Your task to perform on an android device: check android version Image 0: 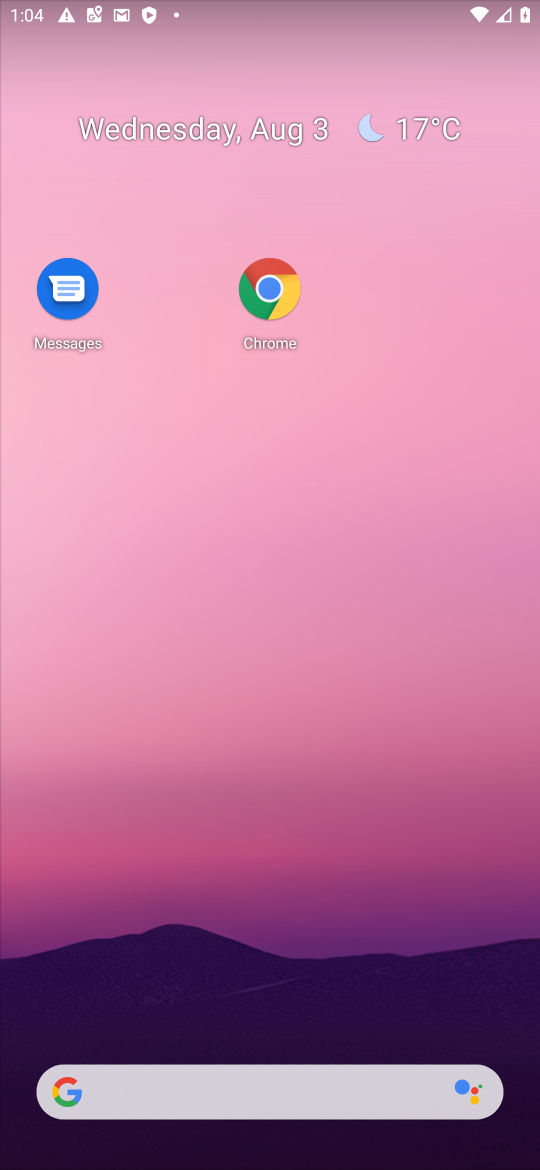
Step 0: drag from (387, 1040) to (497, 12)
Your task to perform on an android device: check android version Image 1: 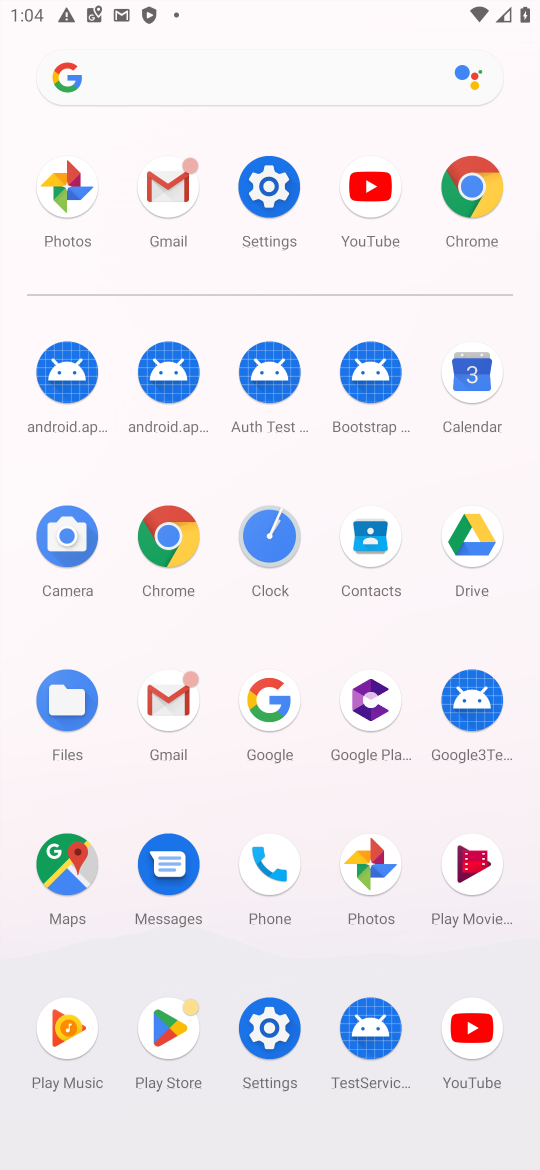
Step 1: click (281, 212)
Your task to perform on an android device: check android version Image 2: 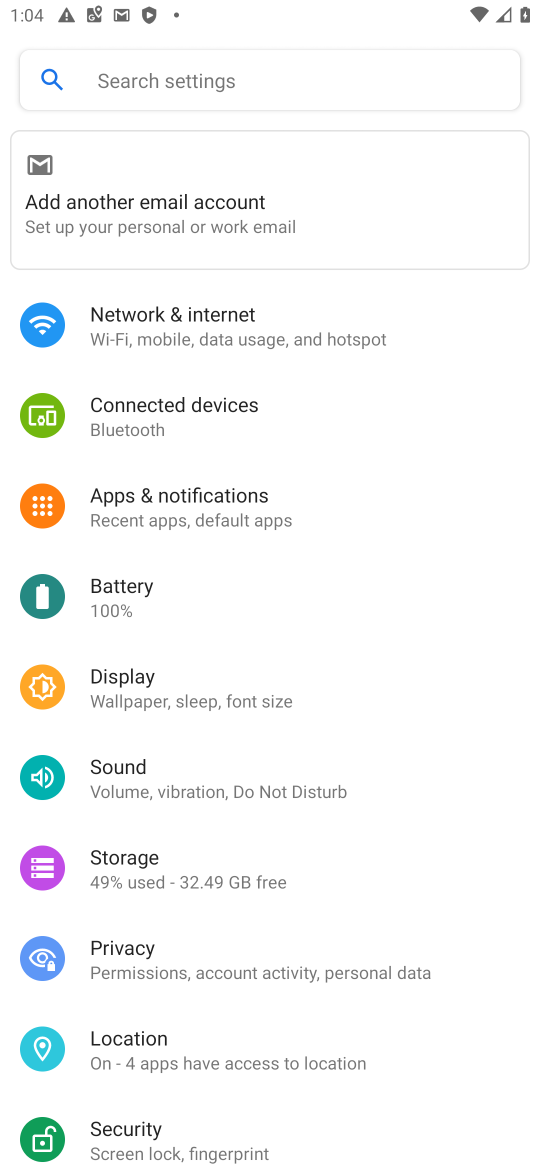
Step 2: click (266, 336)
Your task to perform on an android device: check android version Image 3: 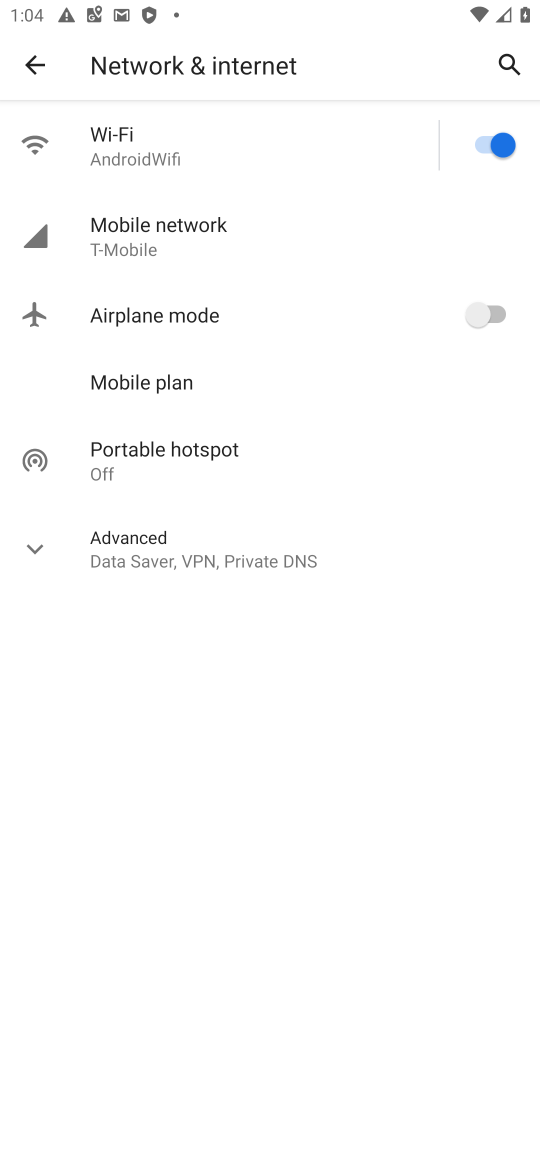
Step 3: task complete